Your task to perform on an android device: turn off priority inbox in the gmail app Image 0: 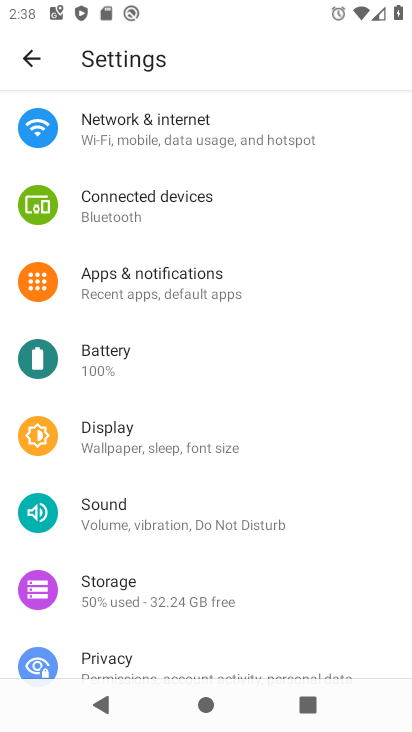
Step 0: press home button
Your task to perform on an android device: turn off priority inbox in the gmail app Image 1: 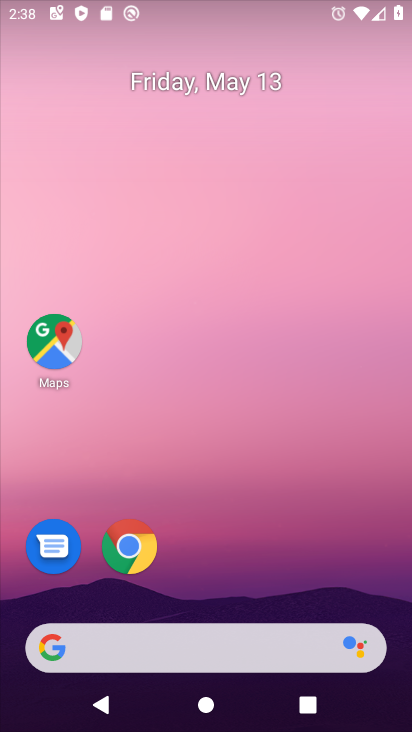
Step 1: drag from (250, 341) to (278, 154)
Your task to perform on an android device: turn off priority inbox in the gmail app Image 2: 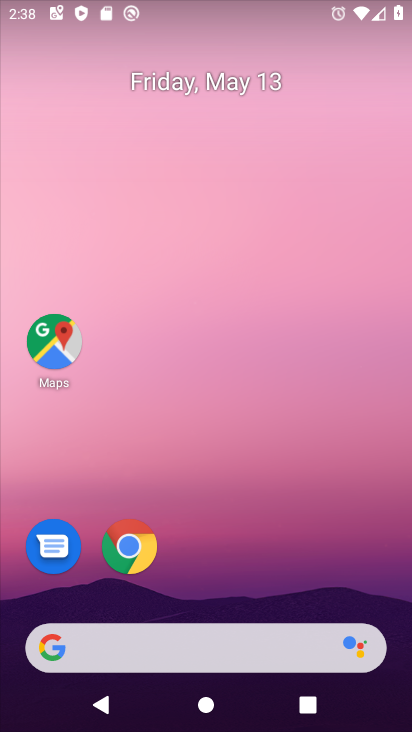
Step 2: drag from (313, 541) to (292, 102)
Your task to perform on an android device: turn off priority inbox in the gmail app Image 3: 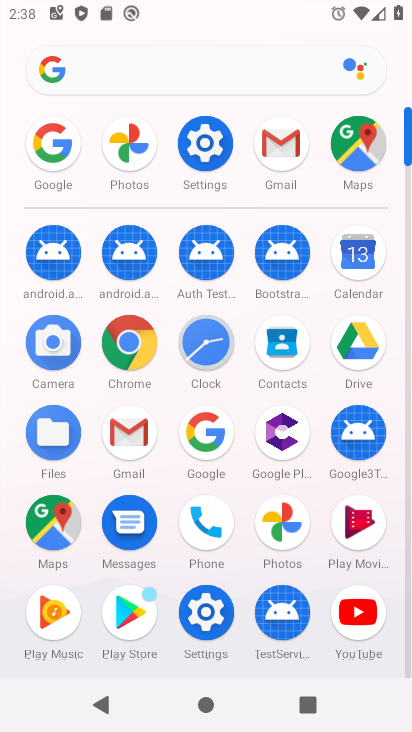
Step 3: click (288, 153)
Your task to perform on an android device: turn off priority inbox in the gmail app Image 4: 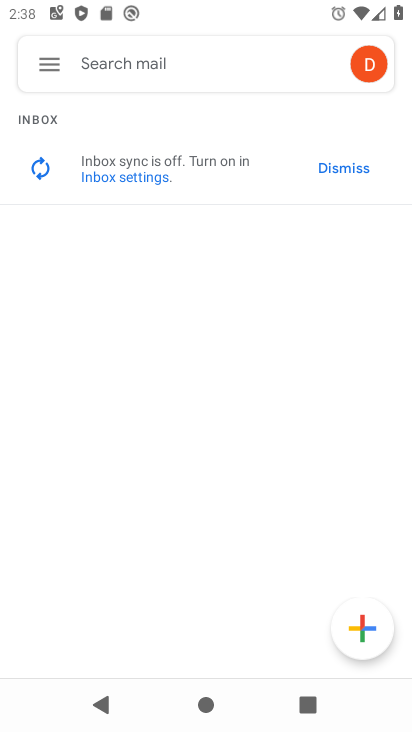
Step 4: click (50, 69)
Your task to perform on an android device: turn off priority inbox in the gmail app Image 5: 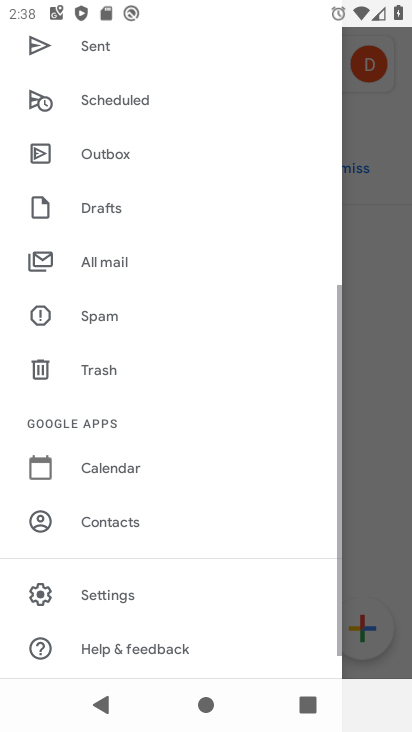
Step 5: drag from (181, 505) to (208, 145)
Your task to perform on an android device: turn off priority inbox in the gmail app Image 6: 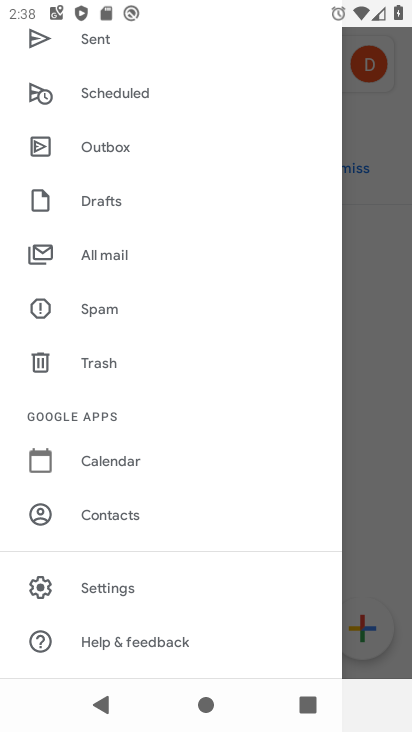
Step 6: click (117, 582)
Your task to perform on an android device: turn off priority inbox in the gmail app Image 7: 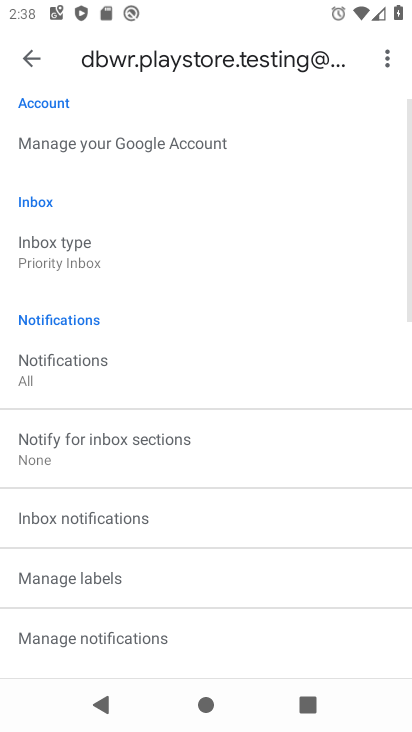
Step 7: drag from (208, 420) to (272, 571)
Your task to perform on an android device: turn off priority inbox in the gmail app Image 8: 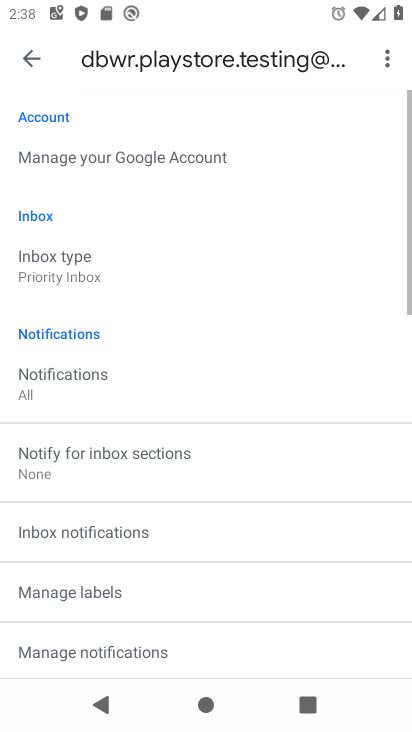
Step 8: drag from (266, 298) to (276, 573)
Your task to perform on an android device: turn off priority inbox in the gmail app Image 9: 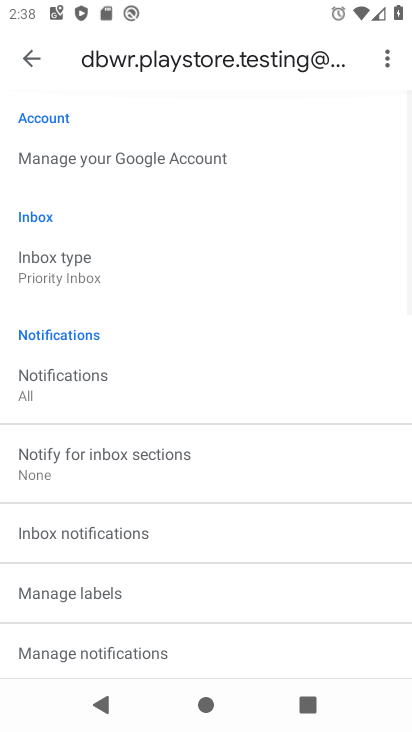
Step 9: click (50, 274)
Your task to perform on an android device: turn off priority inbox in the gmail app Image 10: 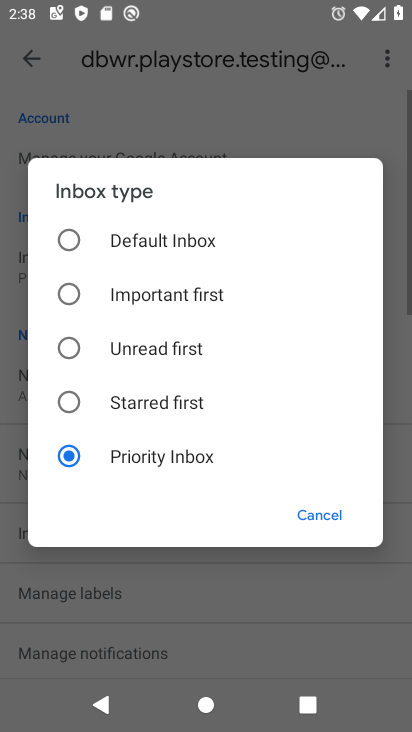
Step 10: task complete